Your task to perform on an android device: Open settings Image 0: 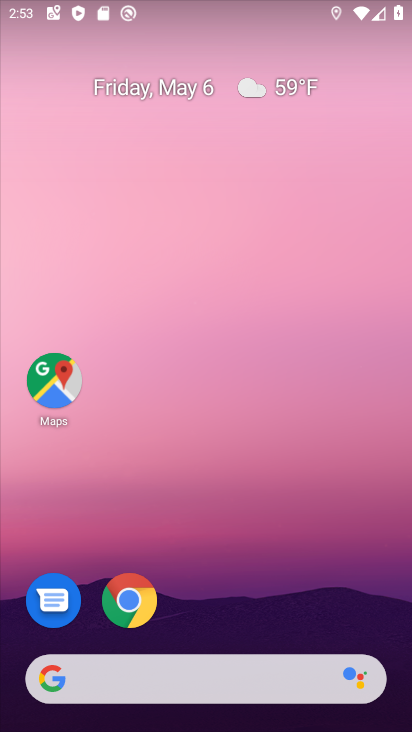
Step 0: drag from (249, 541) to (216, 38)
Your task to perform on an android device: Open settings Image 1: 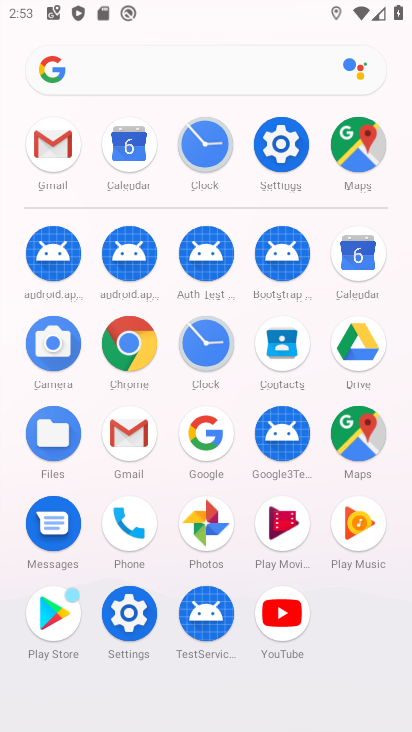
Step 1: click (277, 145)
Your task to perform on an android device: Open settings Image 2: 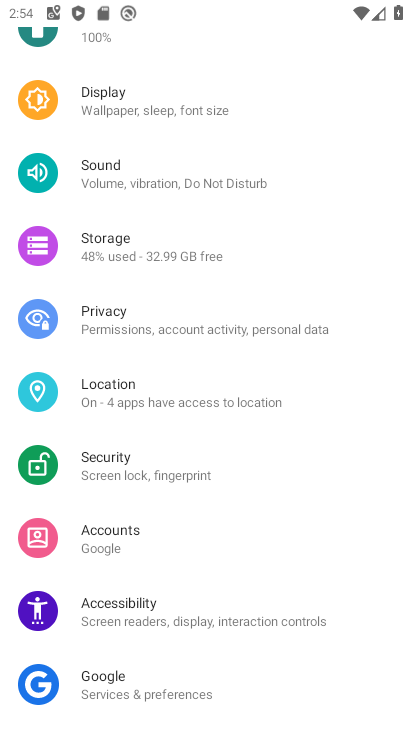
Step 2: task complete